Your task to perform on an android device: open app "Google Find My Device" Image 0: 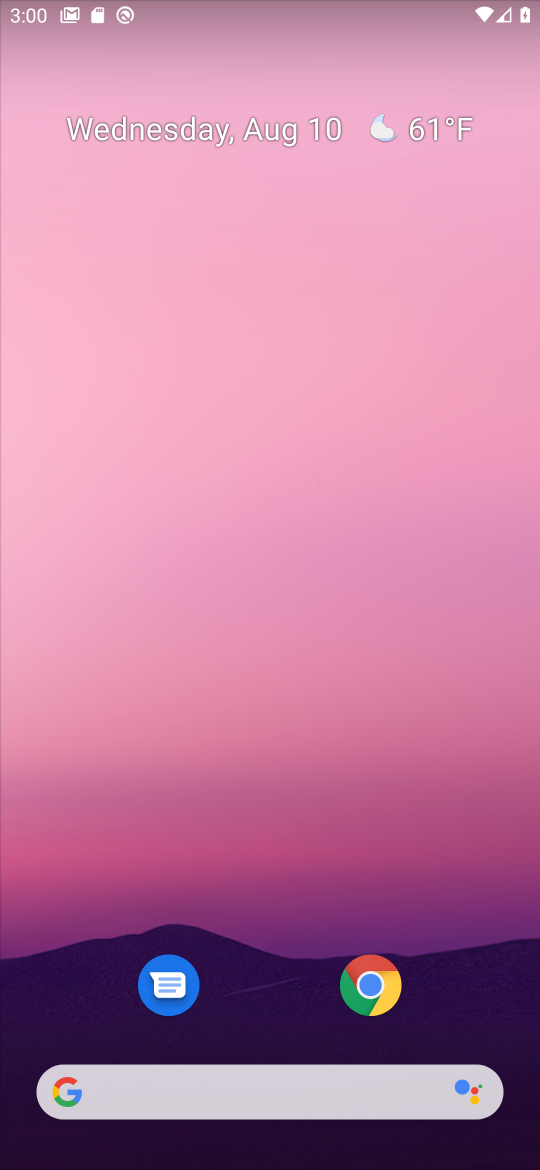
Step 0: drag from (284, 980) to (373, 300)
Your task to perform on an android device: open app "Google Find My Device" Image 1: 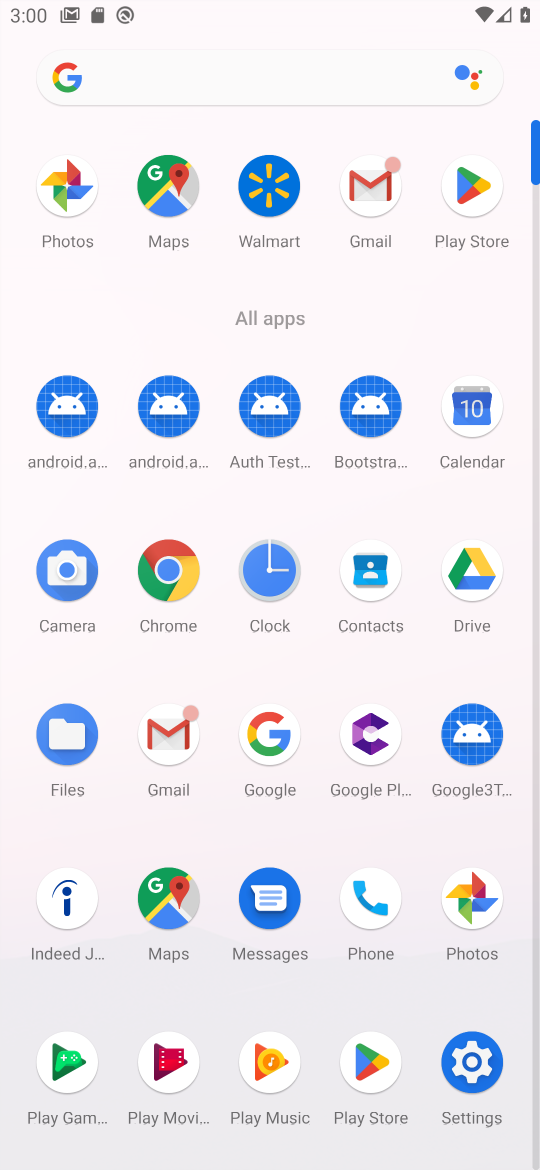
Step 1: click (446, 214)
Your task to perform on an android device: open app "Google Find My Device" Image 2: 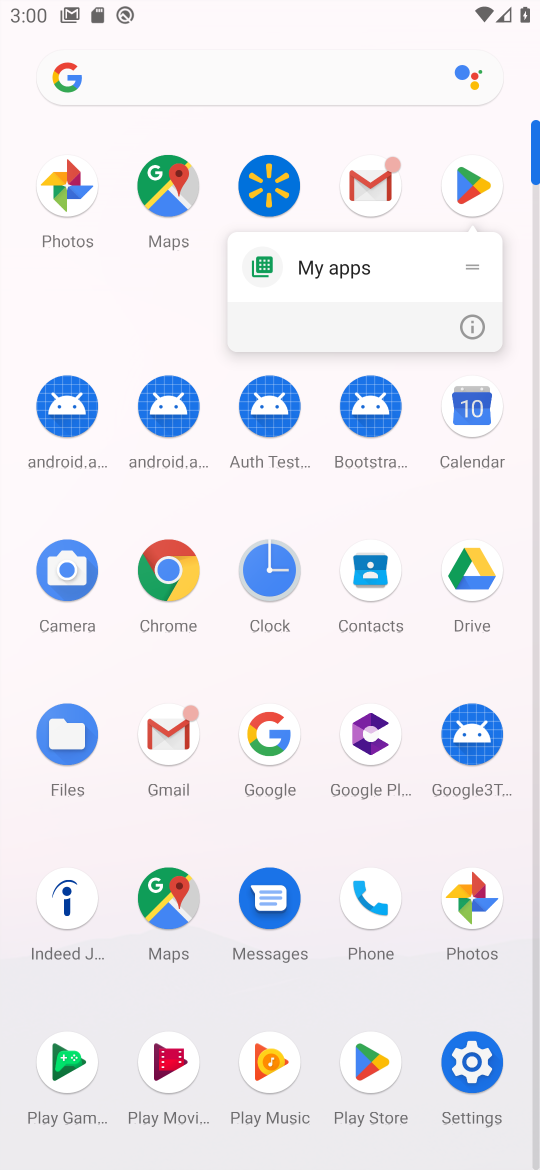
Step 2: click (478, 187)
Your task to perform on an android device: open app "Google Find My Device" Image 3: 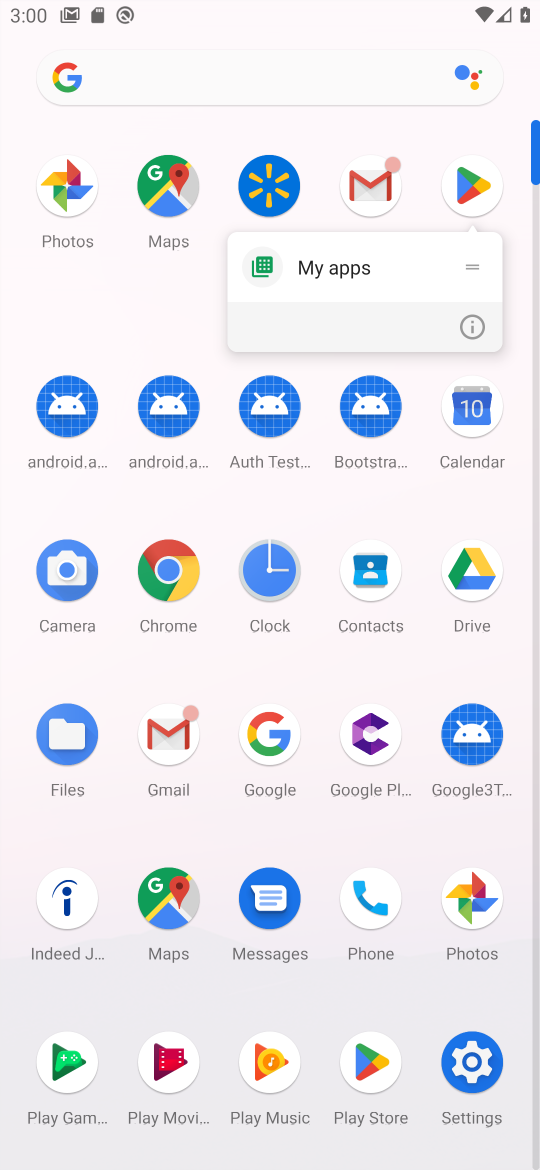
Step 3: click (466, 188)
Your task to perform on an android device: open app "Google Find My Device" Image 4: 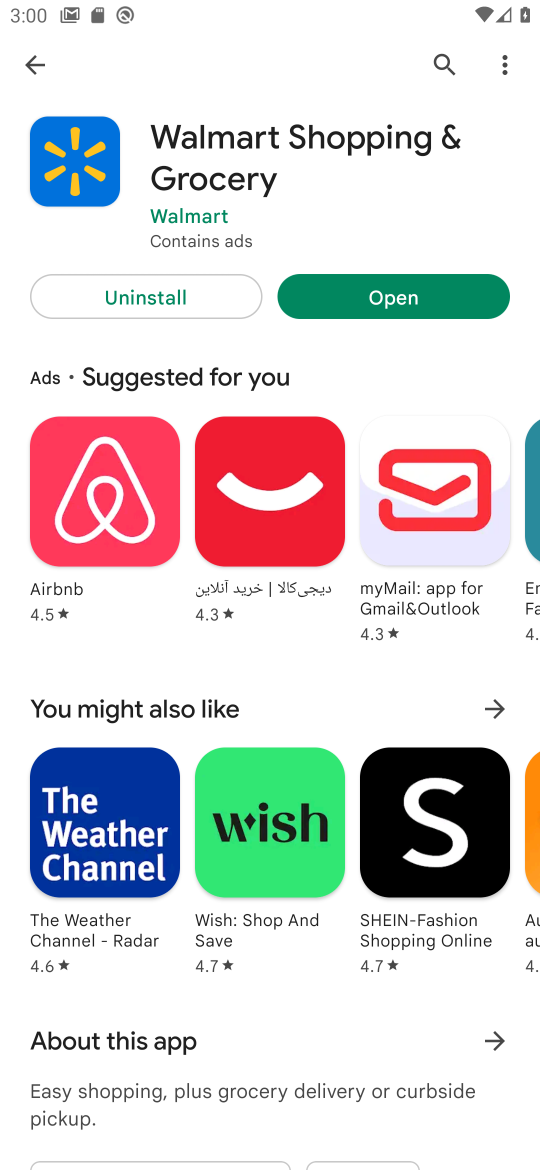
Step 4: click (36, 61)
Your task to perform on an android device: open app "Google Find My Device" Image 5: 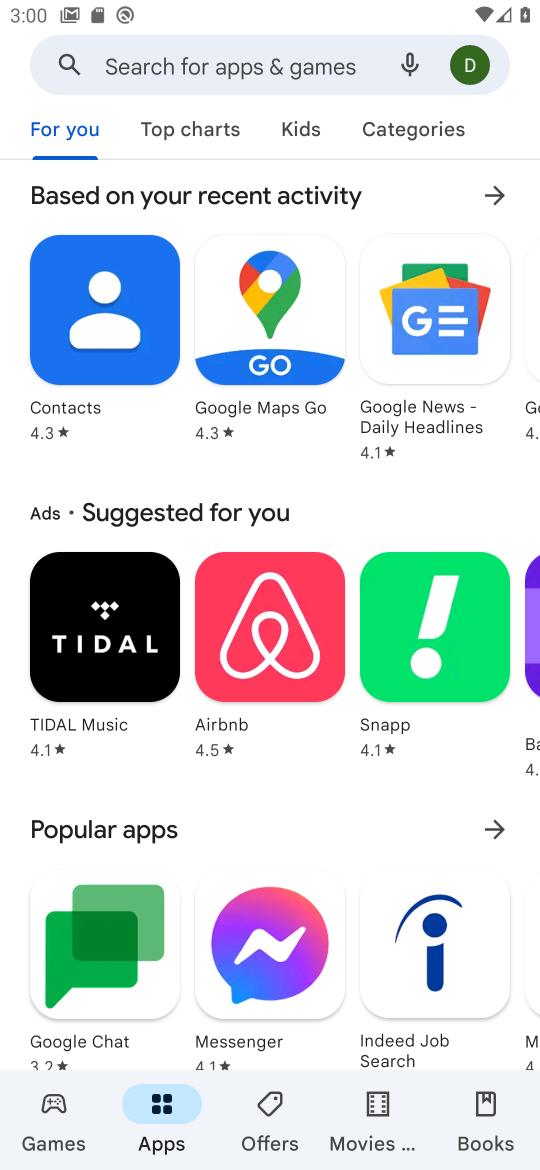
Step 5: click (237, 52)
Your task to perform on an android device: open app "Google Find My Device" Image 6: 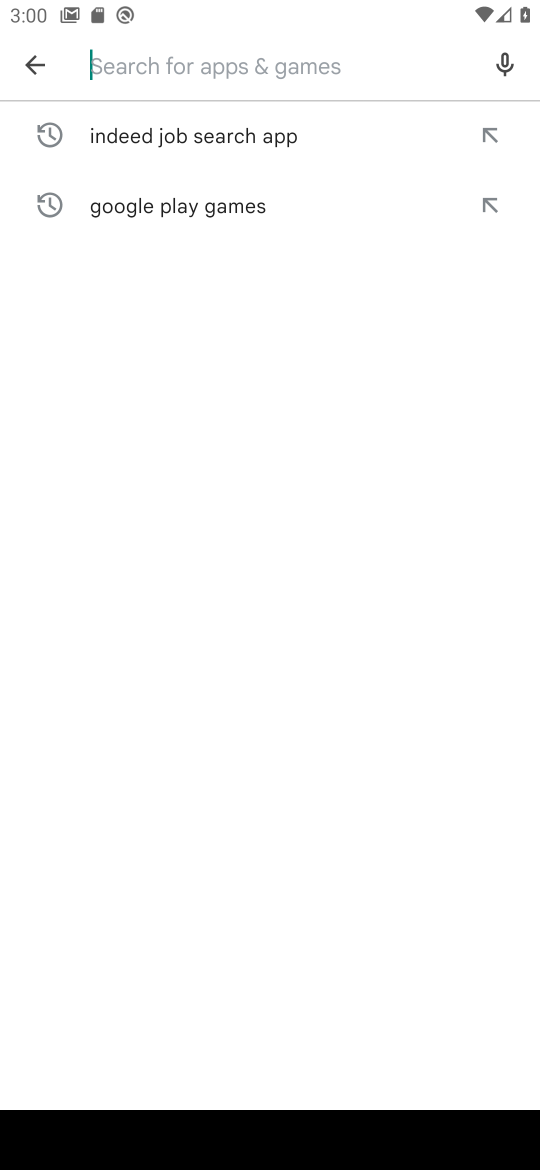
Step 6: type "Google Find My Device"
Your task to perform on an android device: open app "Google Find My Device" Image 7: 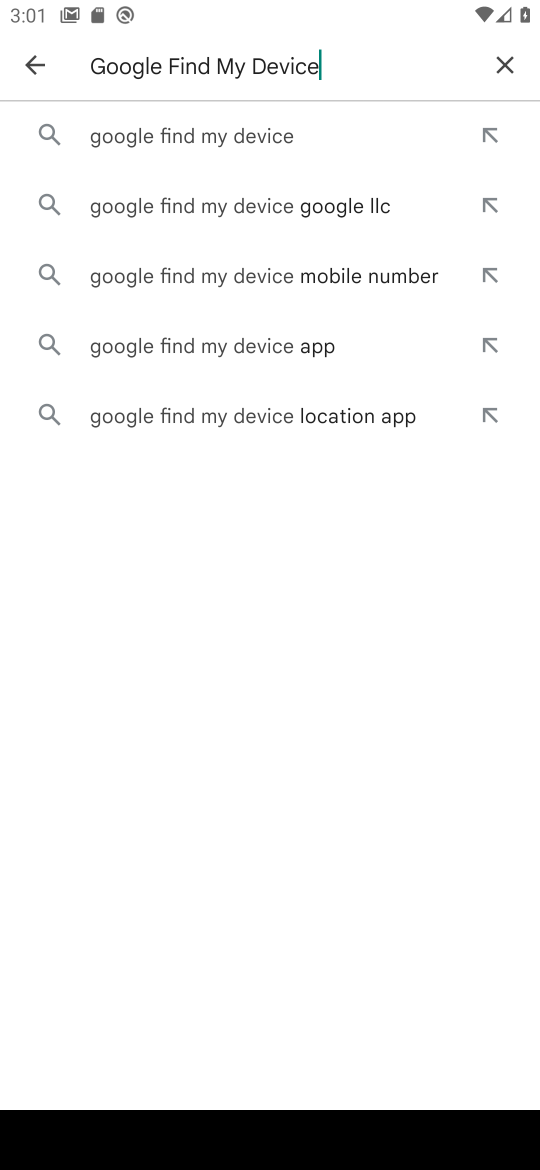
Step 7: click (286, 128)
Your task to perform on an android device: open app "Google Find My Device" Image 8: 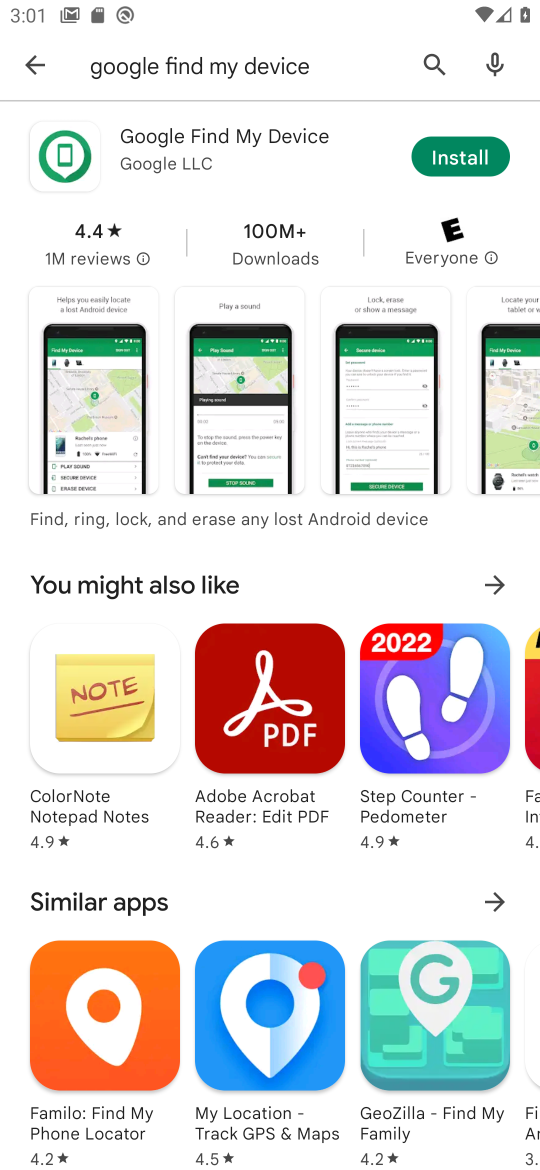
Step 8: click (446, 152)
Your task to perform on an android device: open app "Google Find My Device" Image 9: 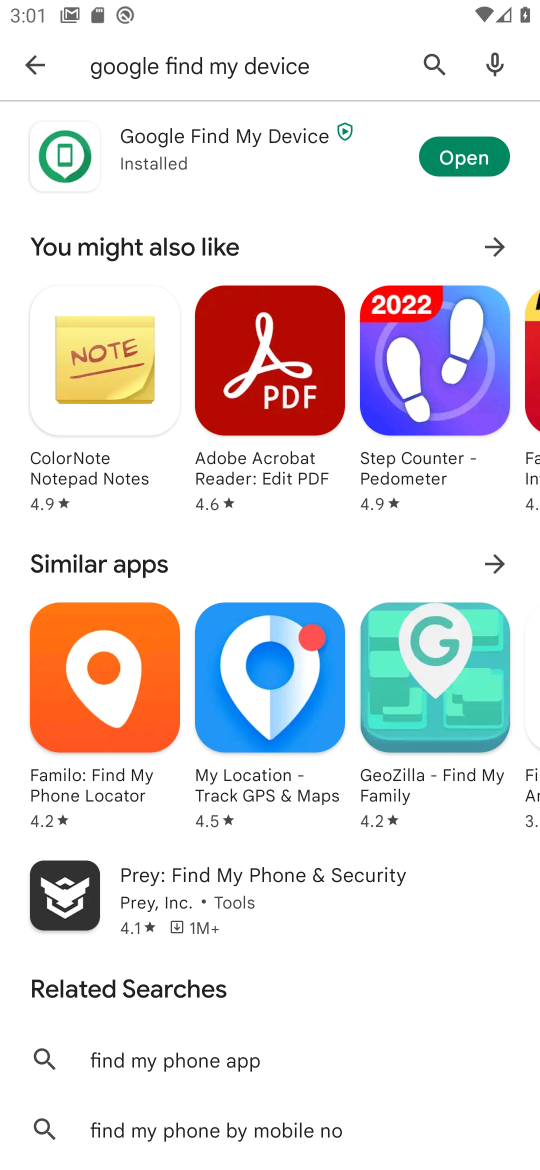
Step 9: click (446, 152)
Your task to perform on an android device: open app "Google Find My Device" Image 10: 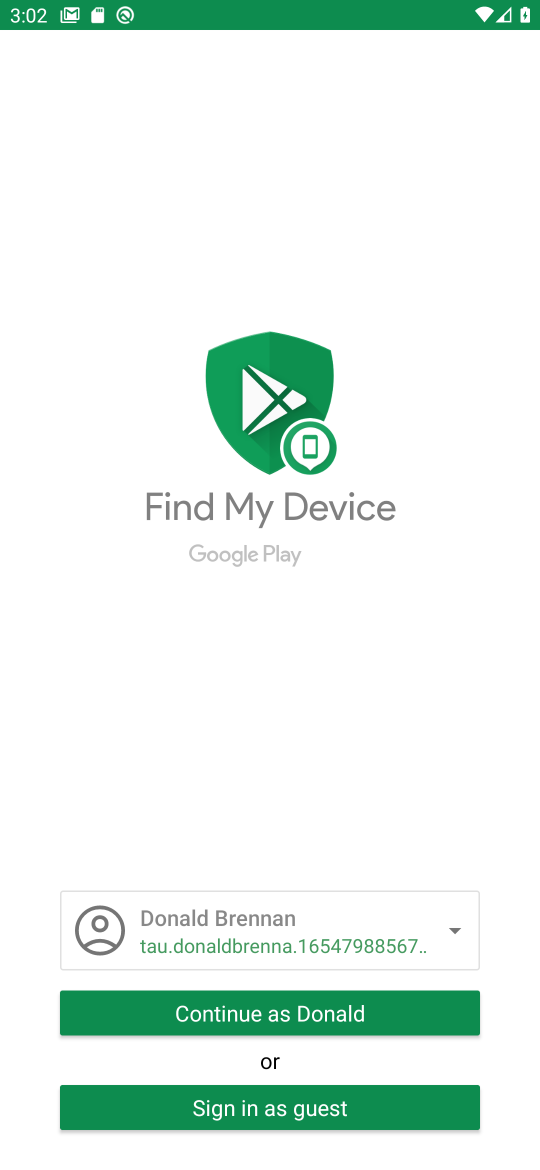
Step 10: task complete